Your task to perform on an android device: change the clock display to analog Image 0: 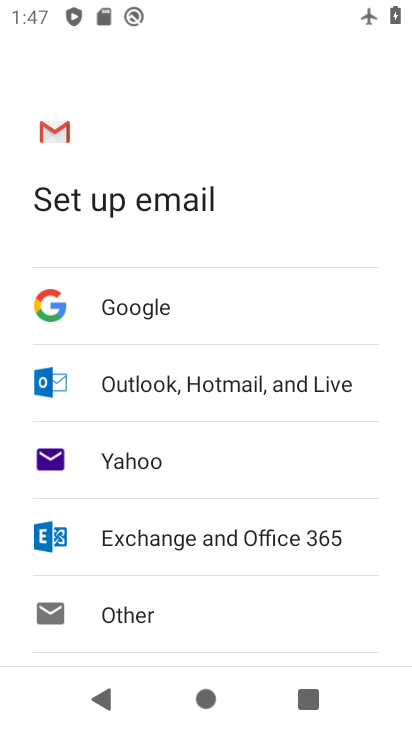
Step 0: press home button
Your task to perform on an android device: change the clock display to analog Image 1: 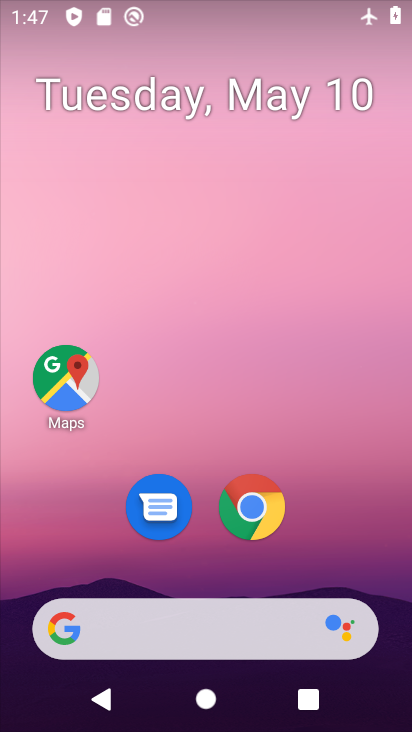
Step 1: drag from (332, 498) to (211, 178)
Your task to perform on an android device: change the clock display to analog Image 2: 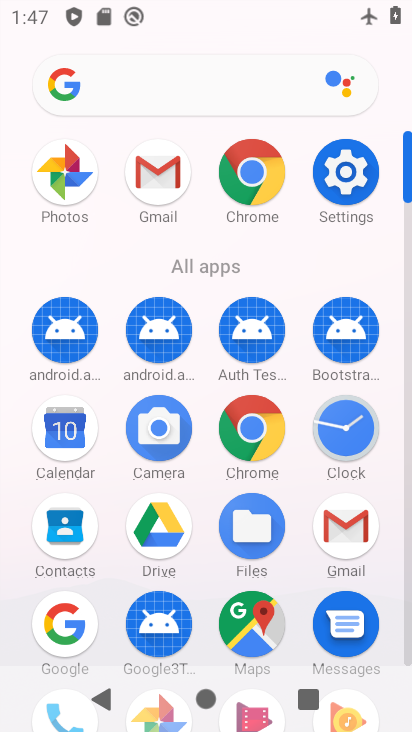
Step 2: click (343, 433)
Your task to perform on an android device: change the clock display to analog Image 3: 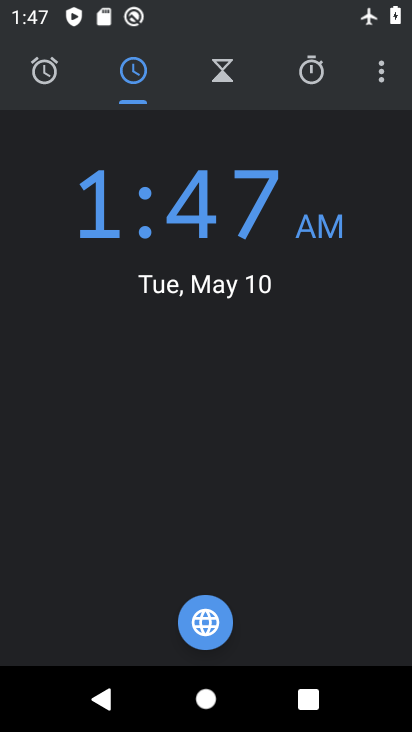
Step 3: click (383, 75)
Your task to perform on an android device: change the clock display to analog Image 4: 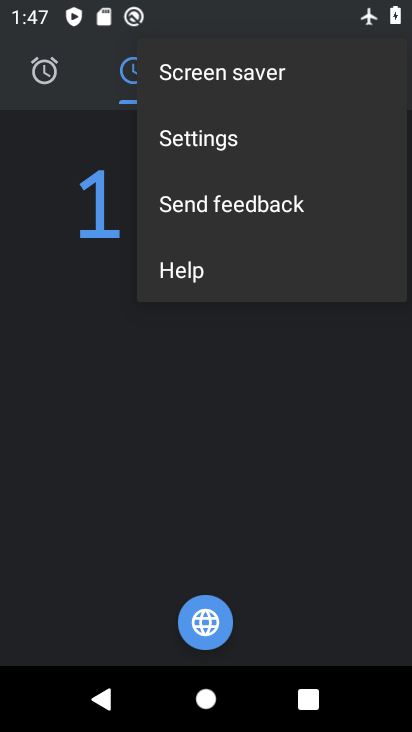
Step 4: click (211, 142)
Your task to perform on an android device: change the clock display to analog Image 5: 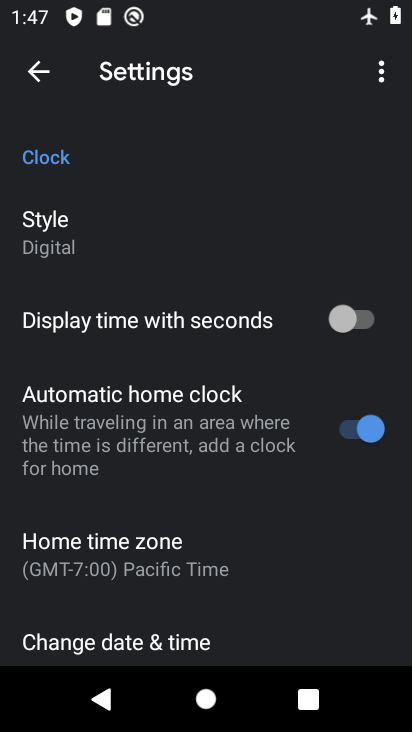
Step 5: click (70, 242)
Your task to perform on an android device: change the clock display to analog Image 6: 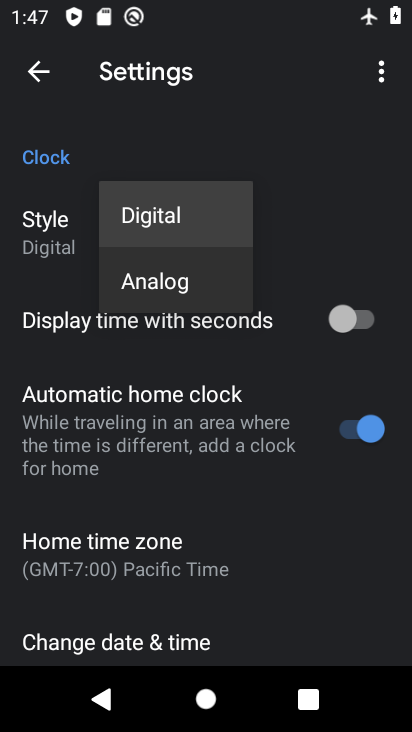
Step 6: click (160, 286)
Your task to perform on an android device: change the clock display to analog Image 7: 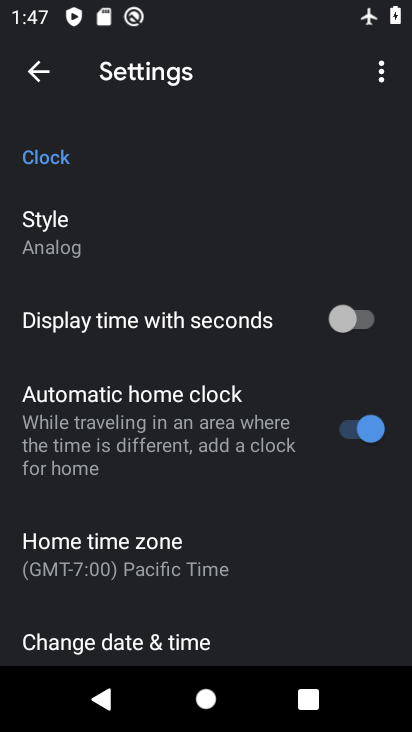
Step 7: task complete